Your task to perform on an android device: Is it going to rain today? Image 0: 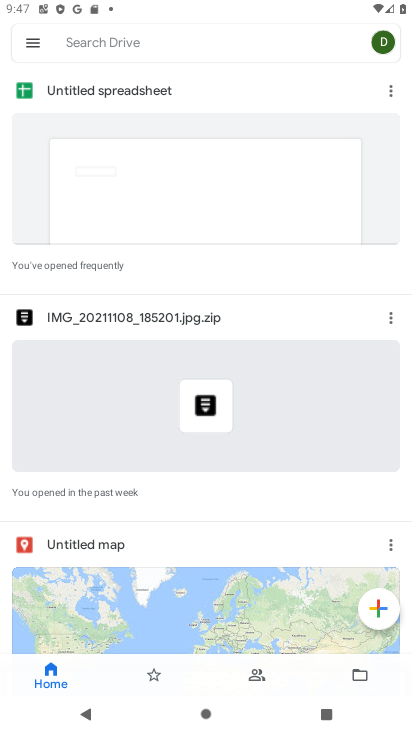
Step 0: press home button
Your task to perform on an android device: Is it going to rain today? Image 1: 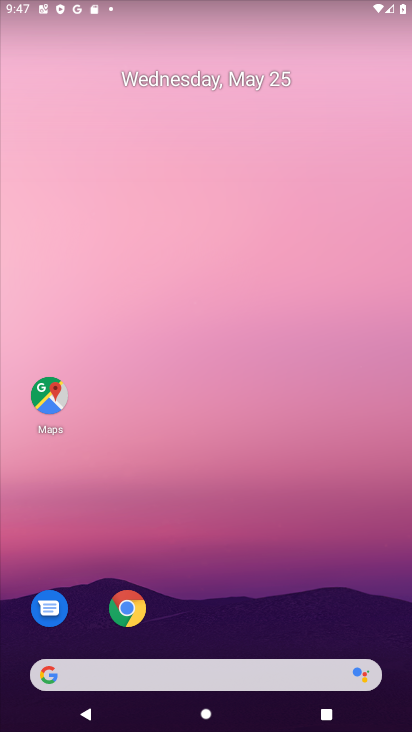
Step 1: click (92, 671)
Your task to perform on an android device: Is it going to rain today? Image 2: 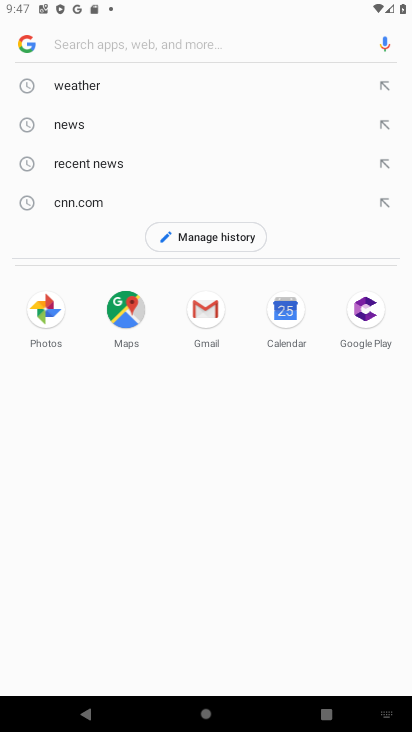
Step 2: click (77, 86)
Your task to perform on an android device: Is it going to rain today? Image 3: 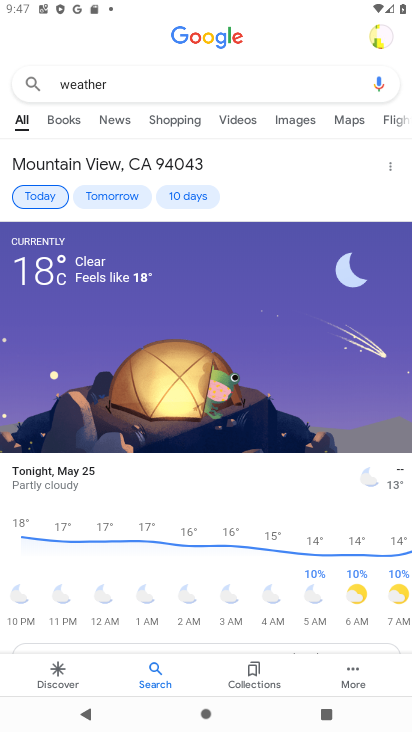
Step 3: task complete